Your task to perform on an android device: turn off priority inbox in the gmail app Image 0: 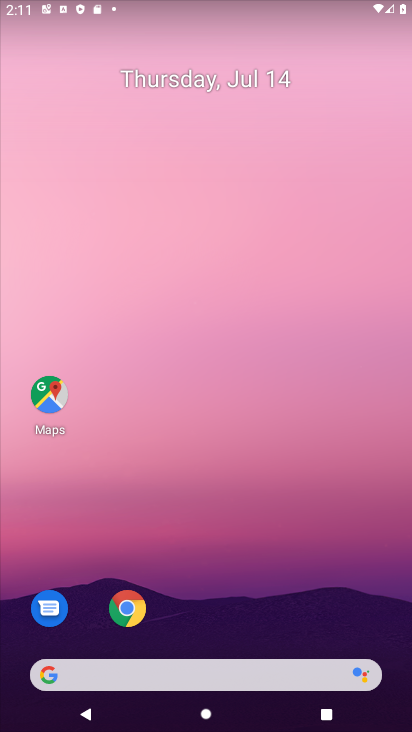
Step 0: drag from (392, 632) to (327, 66)
Your task to perform on an android device: turn off priority inbox in the gmail app Image 1: 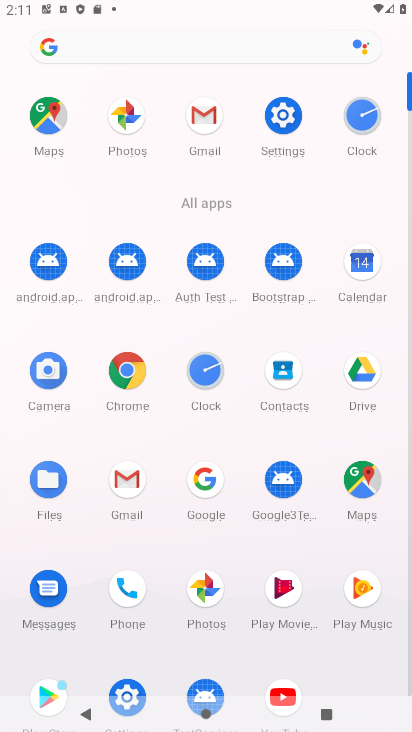
Step 1: click (125, 479)
Your task to perform on an android device: turn off priority inbox in the gmail app Image 2: 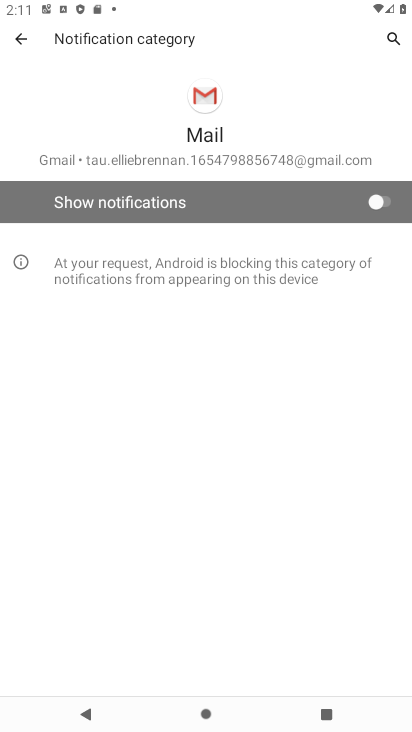
Step 2: press back button
Your task to perform on an android device: turn off priority inbox in the gmail app Image 3: 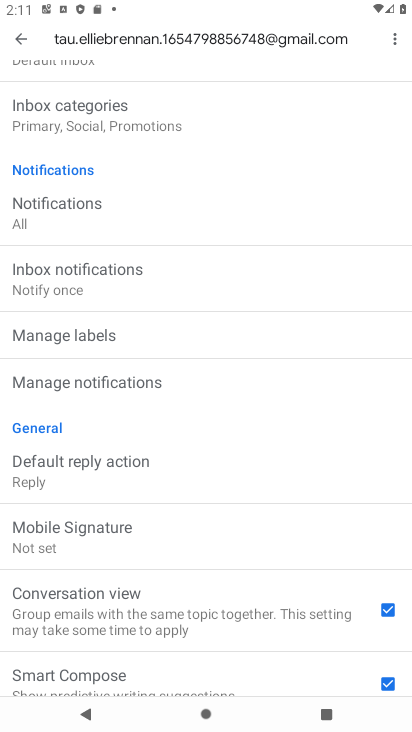
Step 3: drag from (54, 135) to (69, 316)
Your task to perform on an android device: turn off priority inbox in the gmail app Image 4: 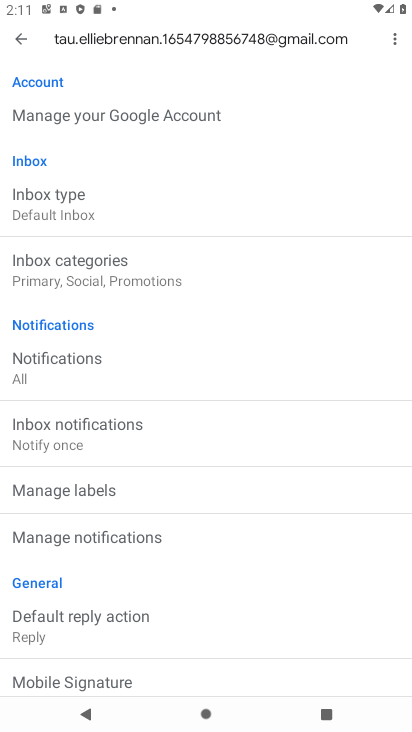
Step 4: click (46, 200)
Your task to perform on an android device: turn off priority inbox in the gmail app Image 5: 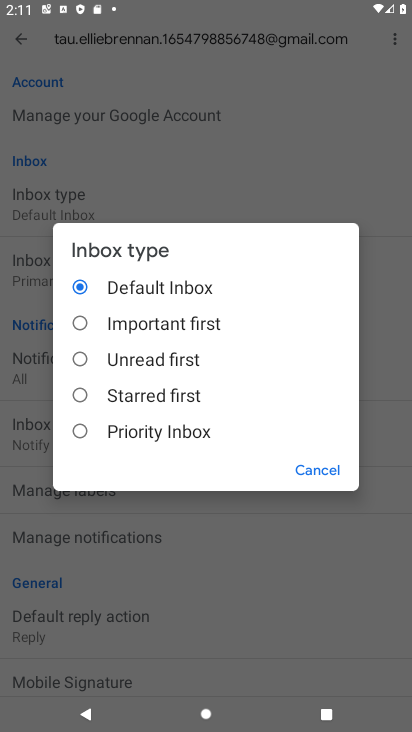
Step 5: task complete